Your task to perform on an android device: Add "energizer triple a" to the cart on costco Image 0: 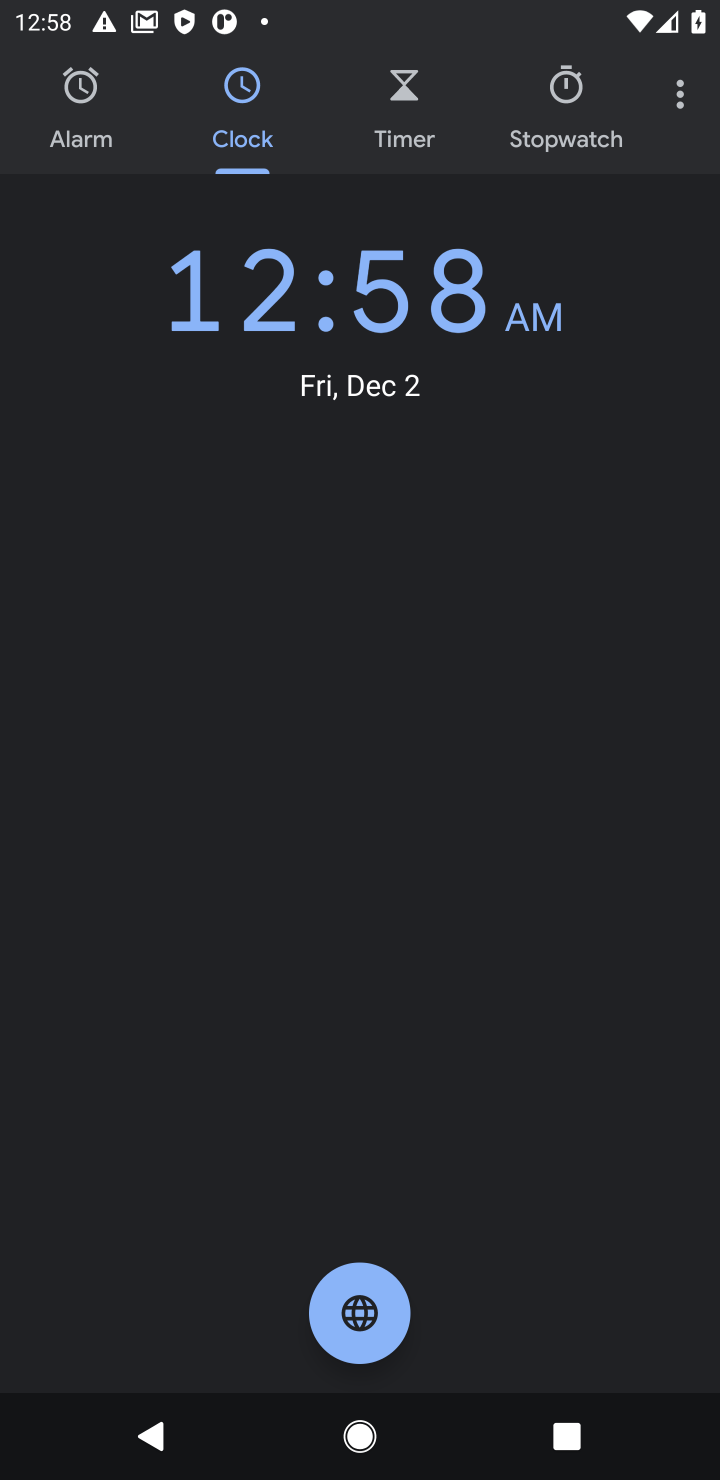
Step 0: press home button
Your task to perform on an android device: Add "energizer triple a" to the cart on costco Image 1: 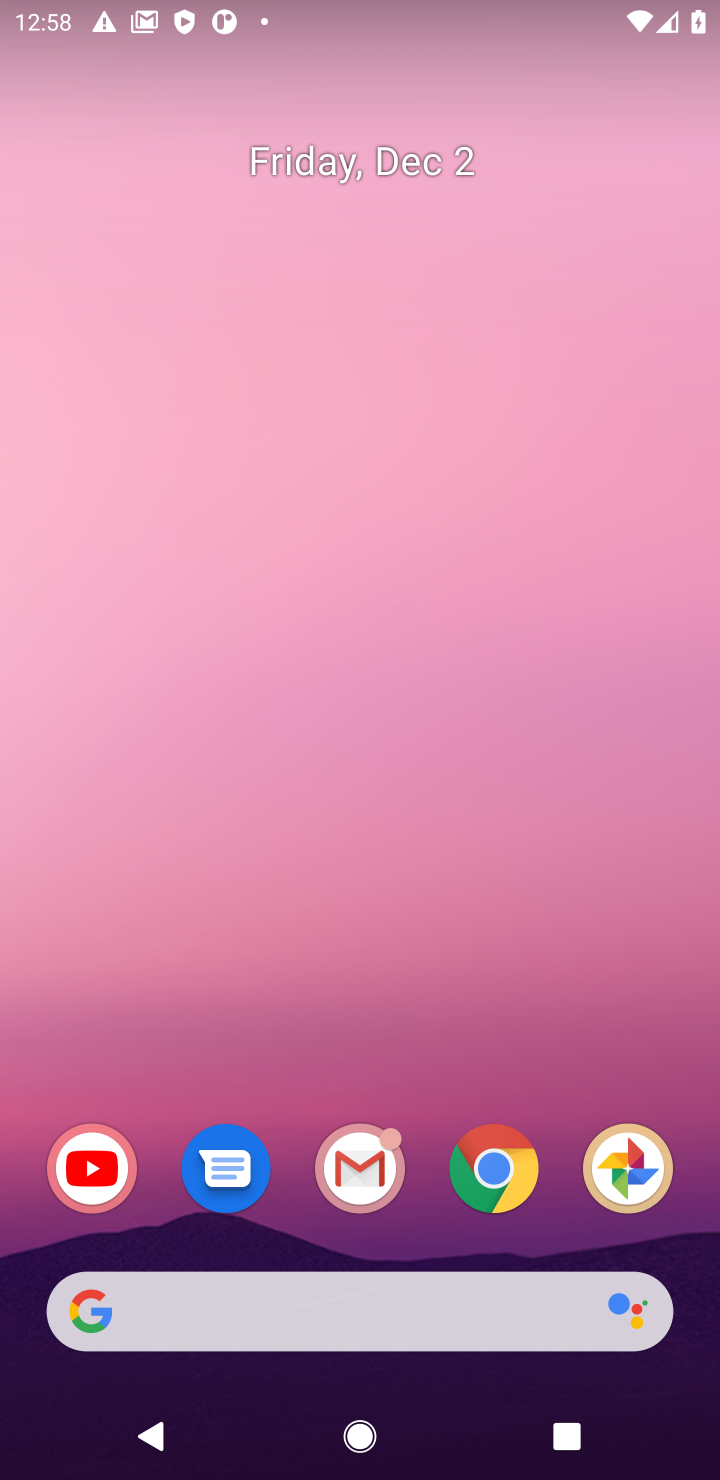
Step 1: click (503, 1178)
Your task to perform on an android device: Add "energizer triple a" to the cart on costco Image 2: 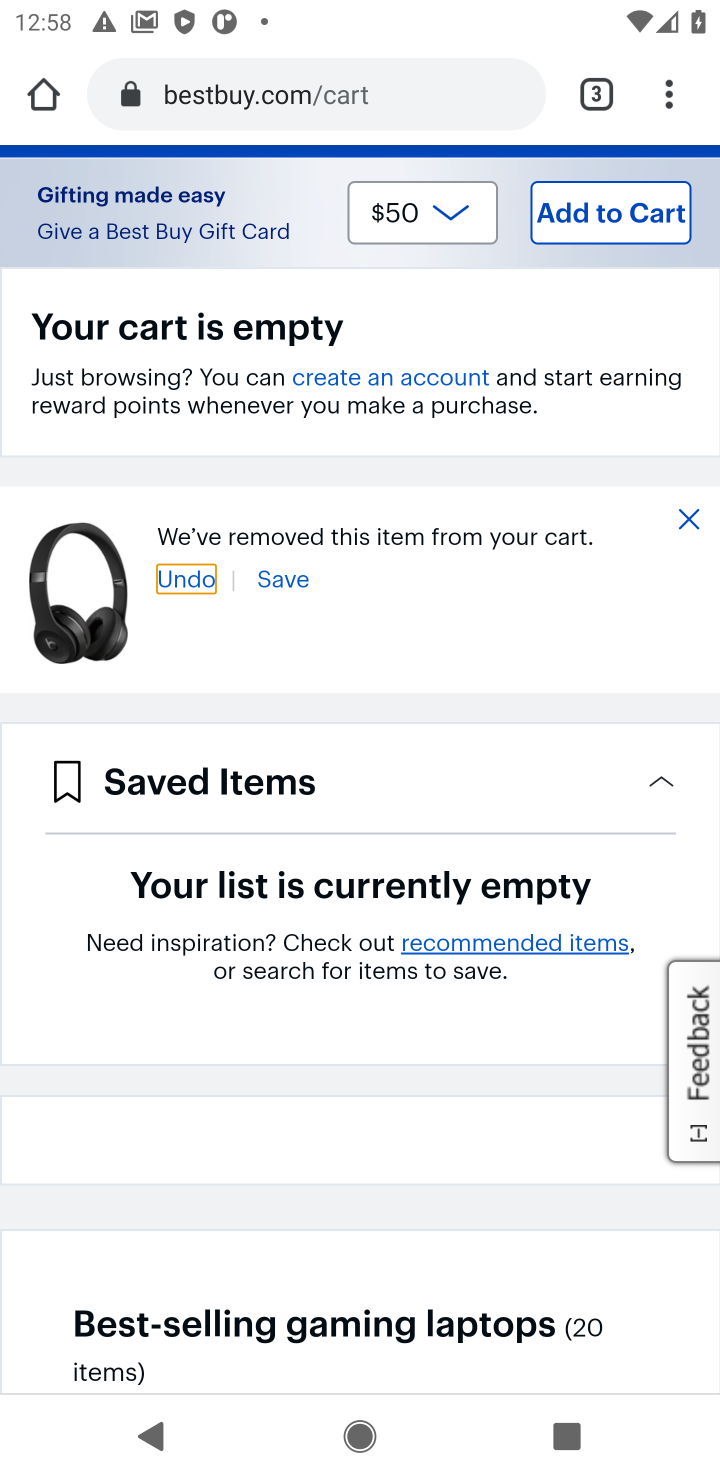
Step 2: click (272, 107)
Your task to perform on an android device: Add "energizer triple a" to the cart on costco Image 3: 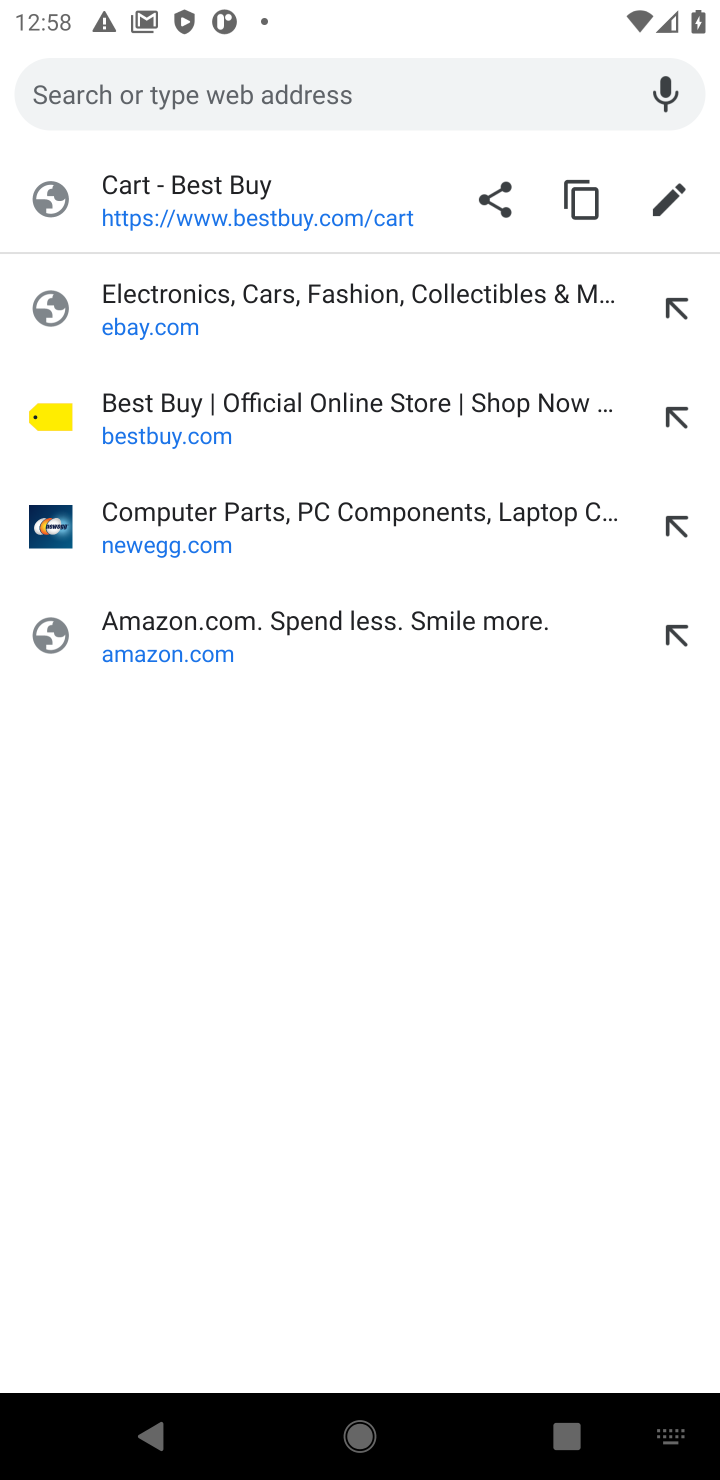
Step 3: type "costco.com"
Your task to perform on an android device: Add "energizer triple a" to the cart on costco Image 4: 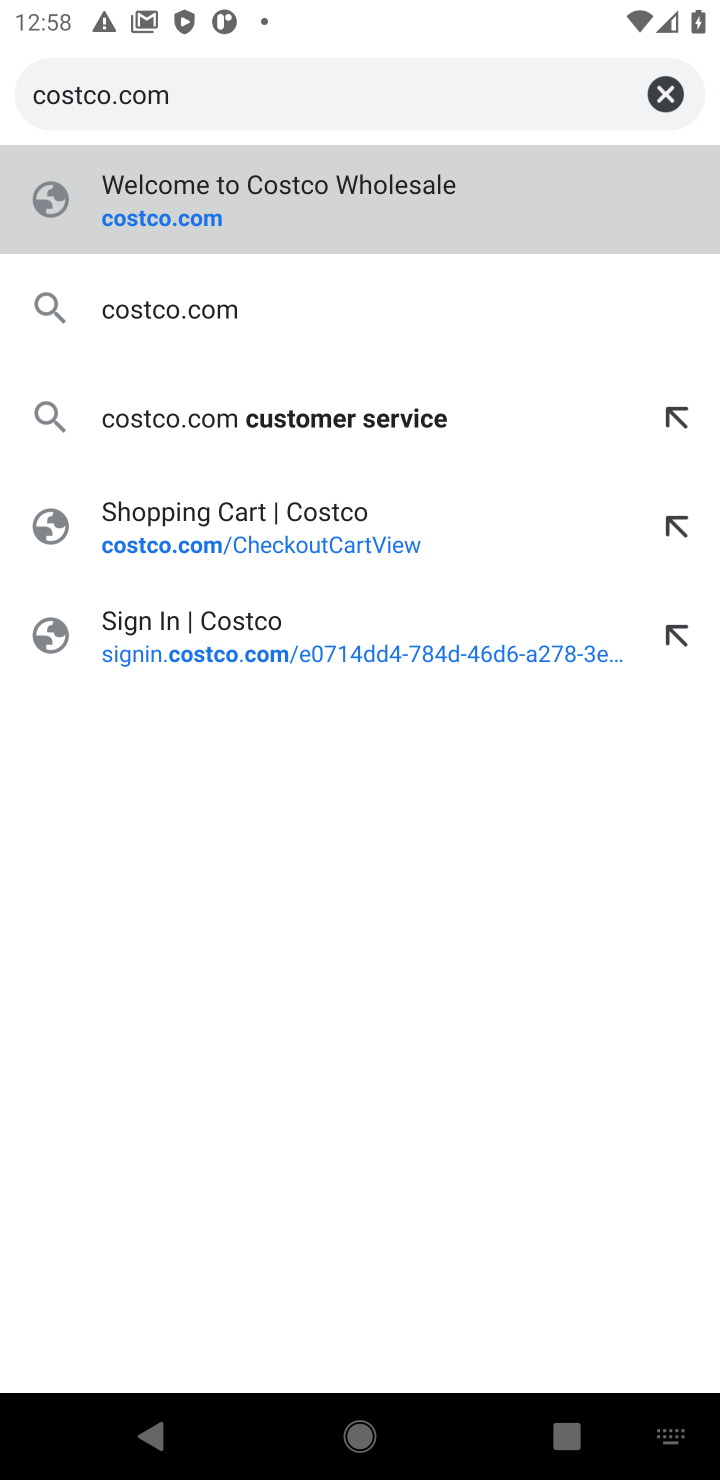
Step 4: click (143, 230)
Your task to perform on an android device: Add "energizer triple a" to the cart on costco Image 5: 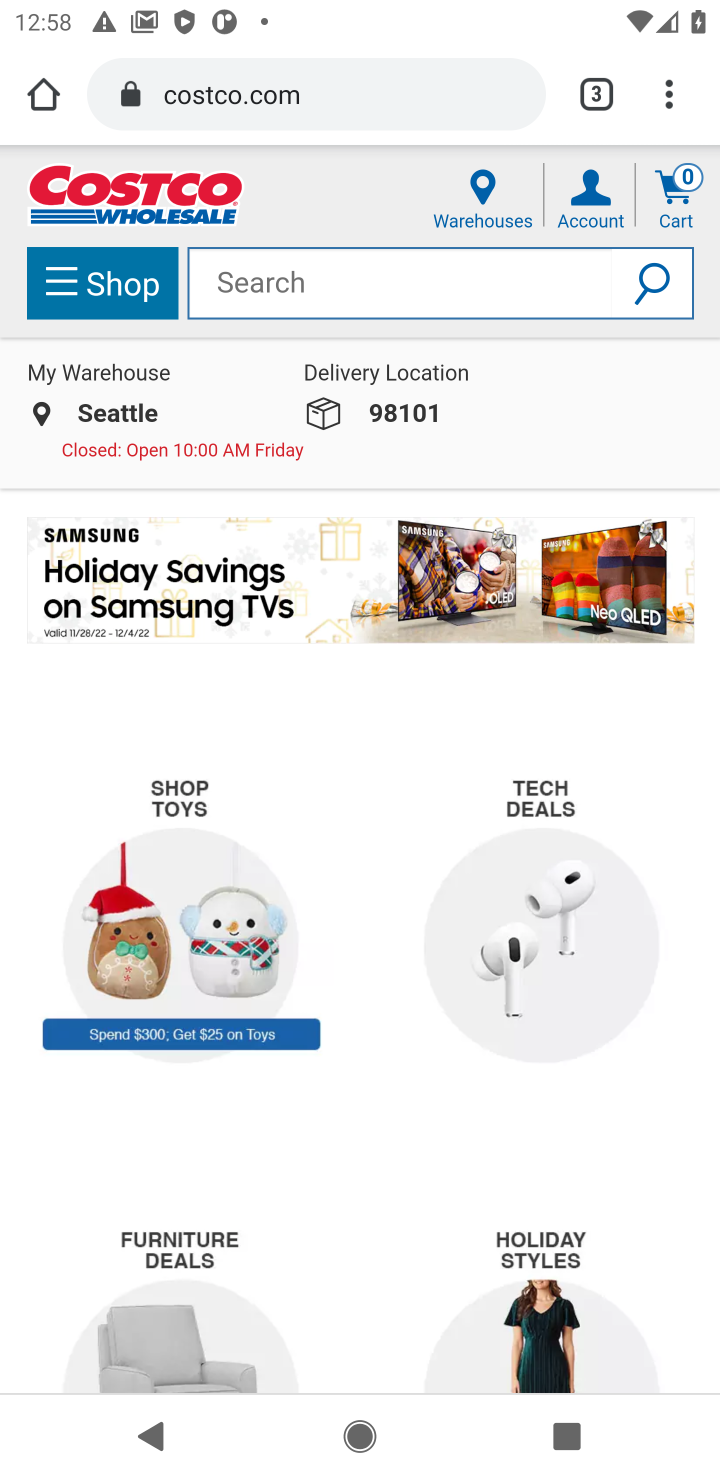
Step 5: click (297, 298)
Your task to perform on an android device: Add "energizer triple a" to the cart on costco Image 6: 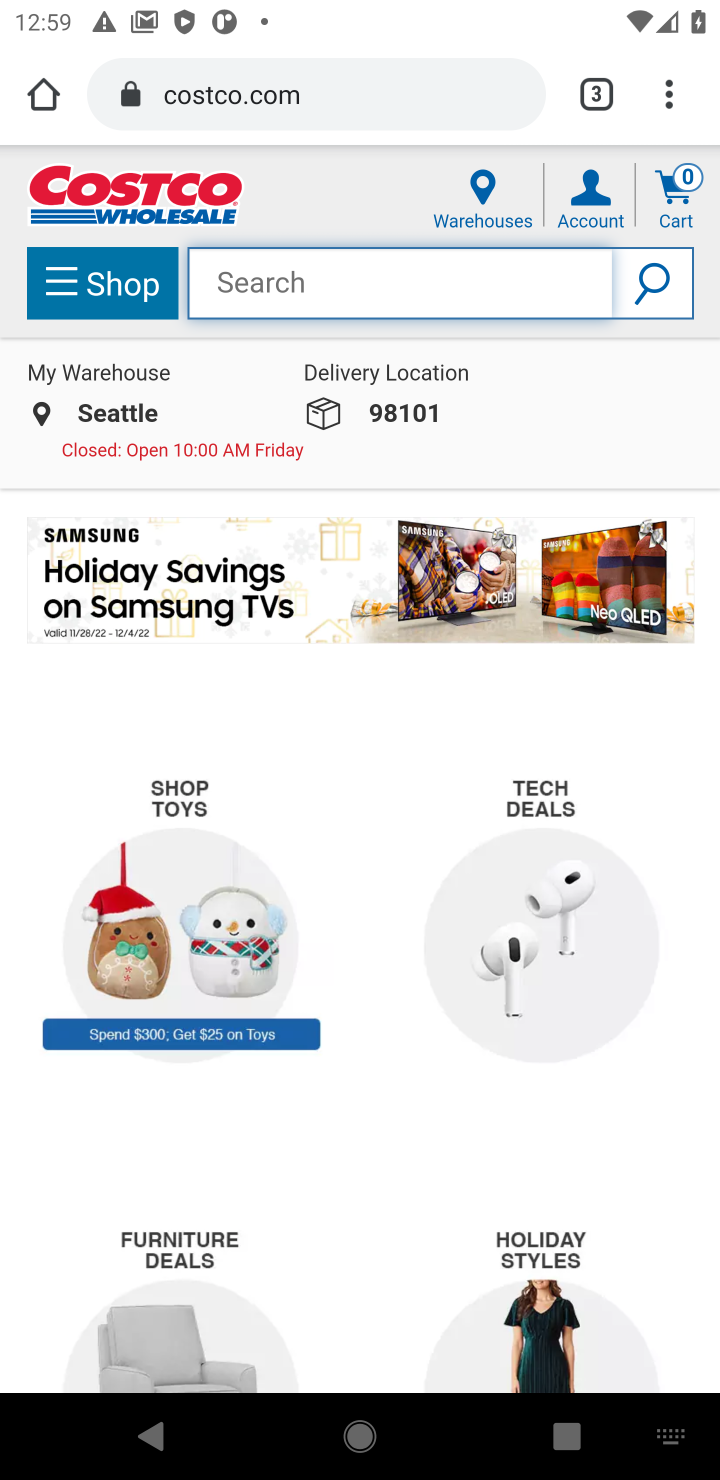
Step 6: type "energizer triple a"
Your task to perform on an android device: Add "energizer triple a" to the cart on costco Image 7: 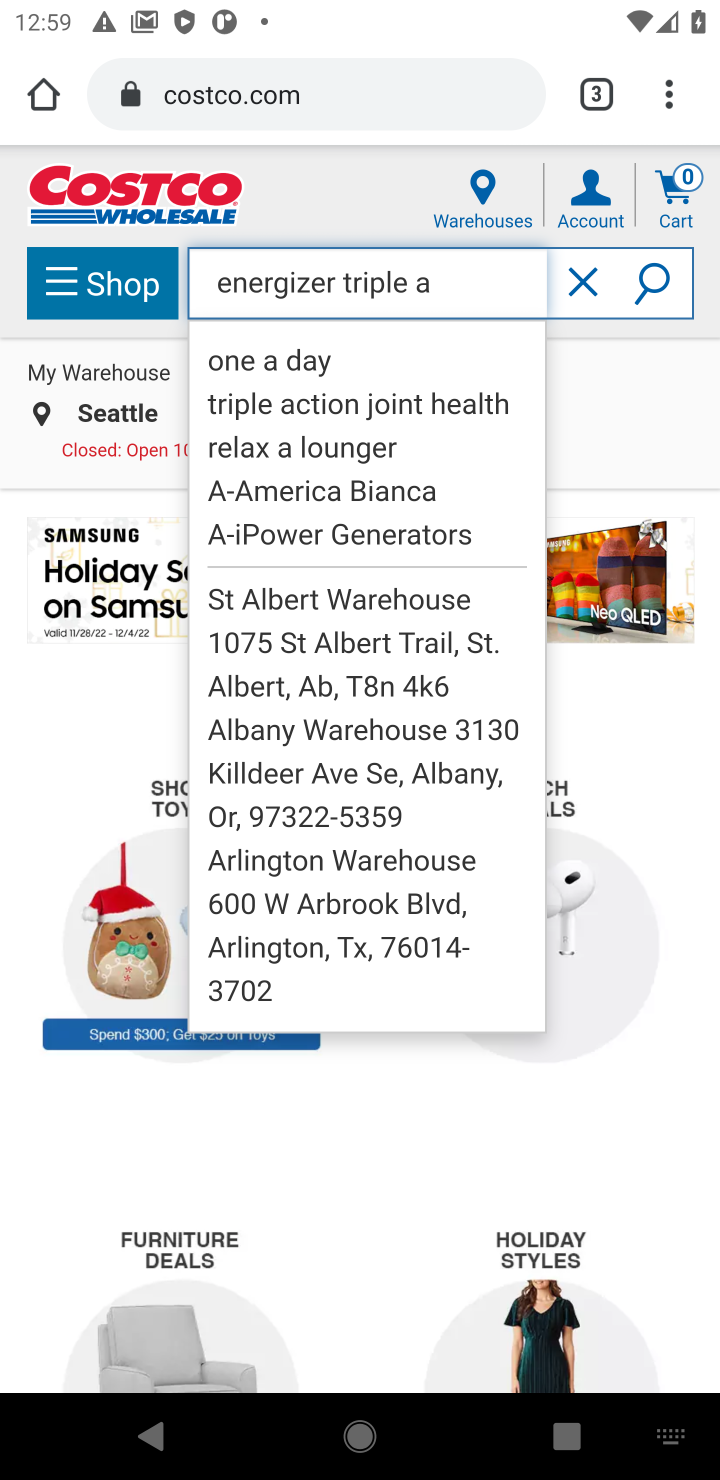
Step 7: click (649, 284)
Your task to perform on an android device: Add "energizer triple a" to the cart on costco Image 8: 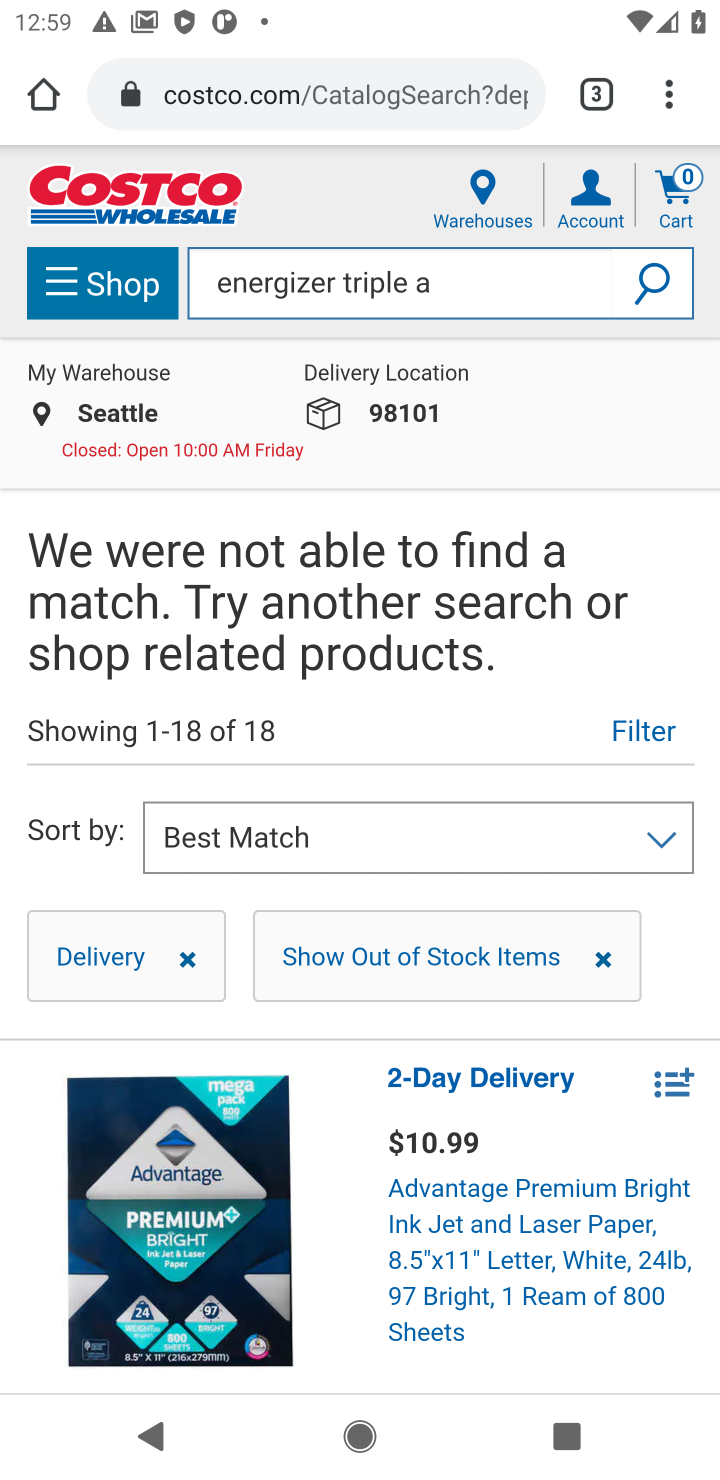
Step 8: task complete